Your task to perform on an android device: Search for Mexican restaurants on Maps Image 0: 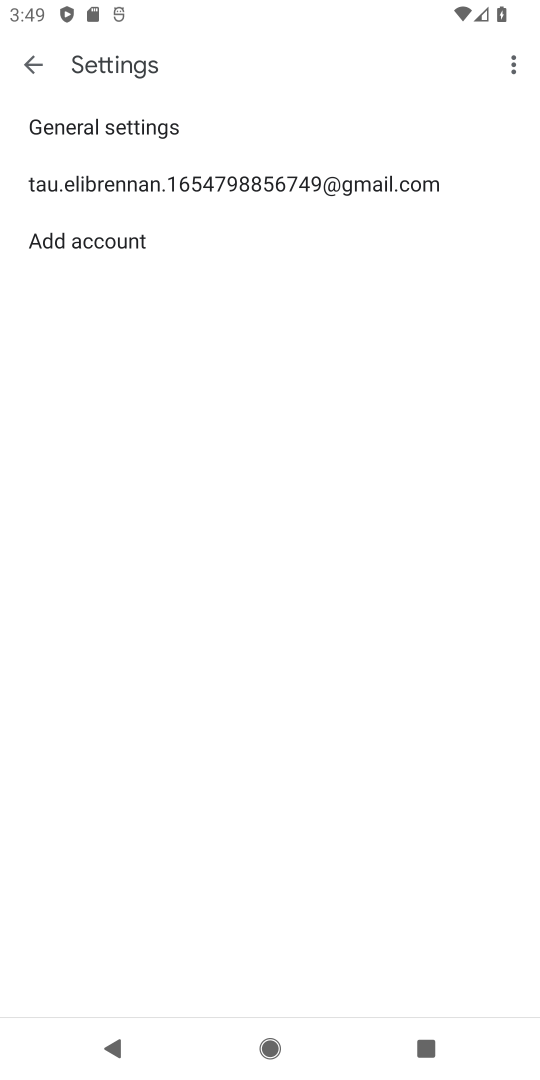
Step 0: press home button
Your task to perform on an android device: Search for Mexican restaurants on Maps Image 1: 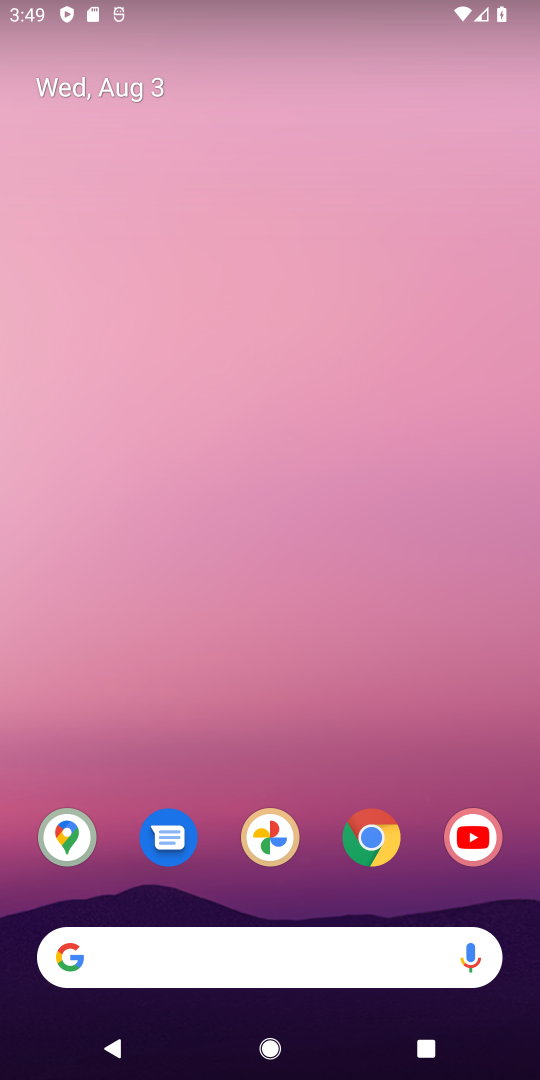
Step 1: drag from (421, 892) to (399, 214)
Your task to perform on an android device: Search for Mexican restaurants on Maps Image 2: 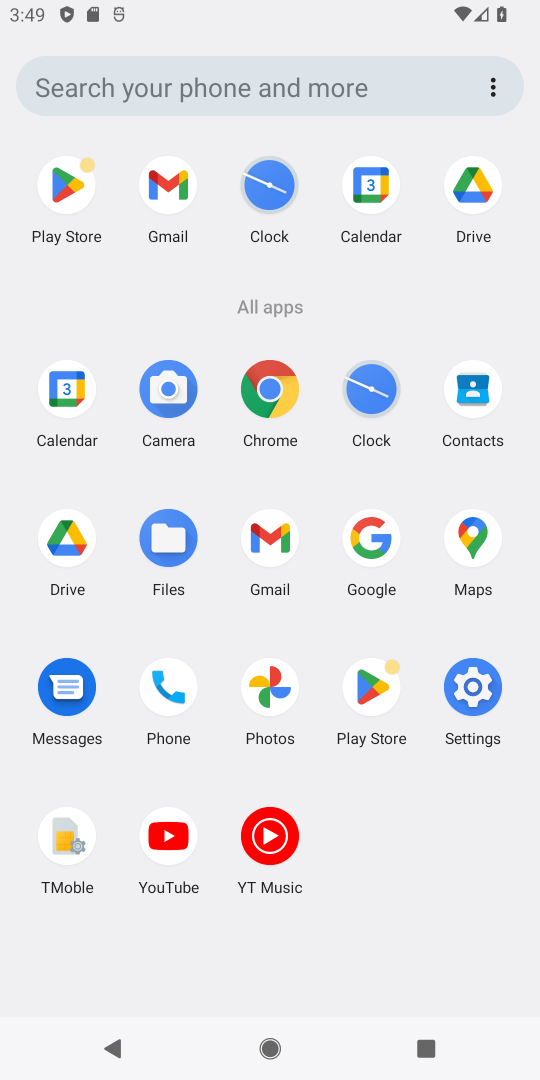
Step 2: click (475, 530)
Your task to perform on an android device: Search for Mexican restaurants on Maps Image 3: 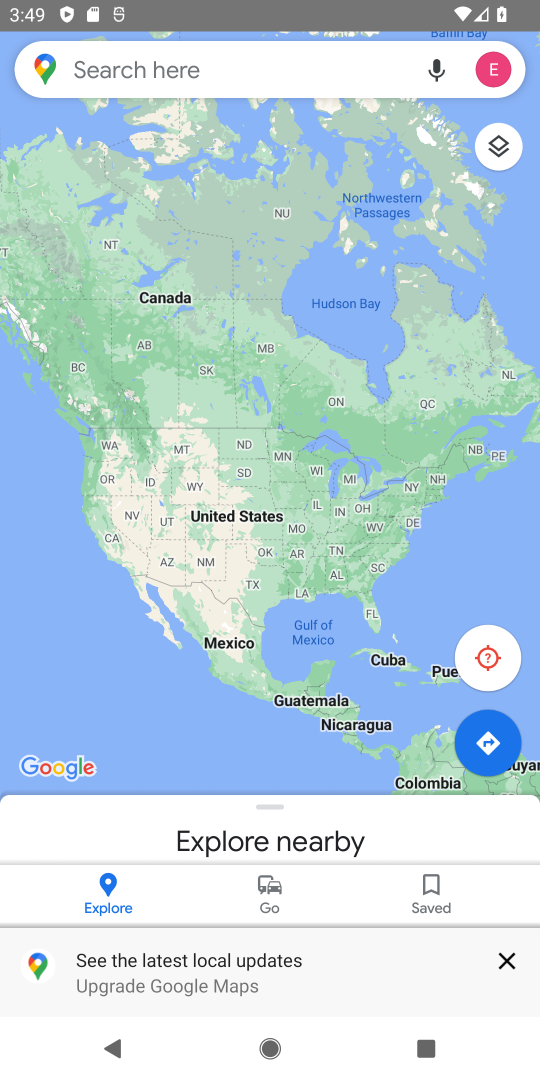
Step 3: click (153, 68)
Your task to perform on an android device: Search for Mexican restaurants on Maps Image 4: 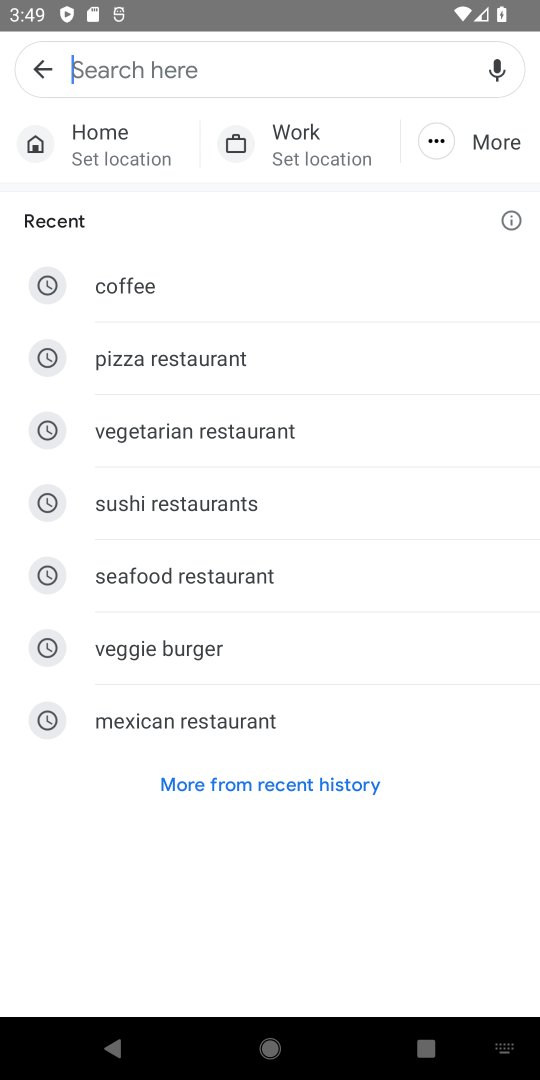
Step 4: type "mexican restaurants"
Your task to perform on an android device: Search for Mexican restaurants on Maps Image 5: 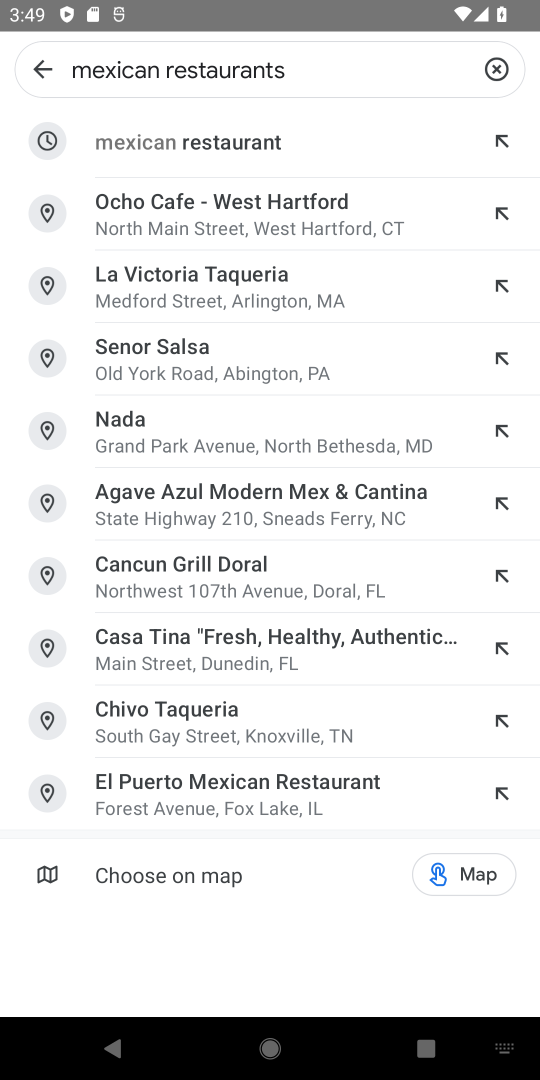
Step 5: click (193, 131)
Your task to perform on an android device: Search for Mexican restaurants on Maps Image 6: 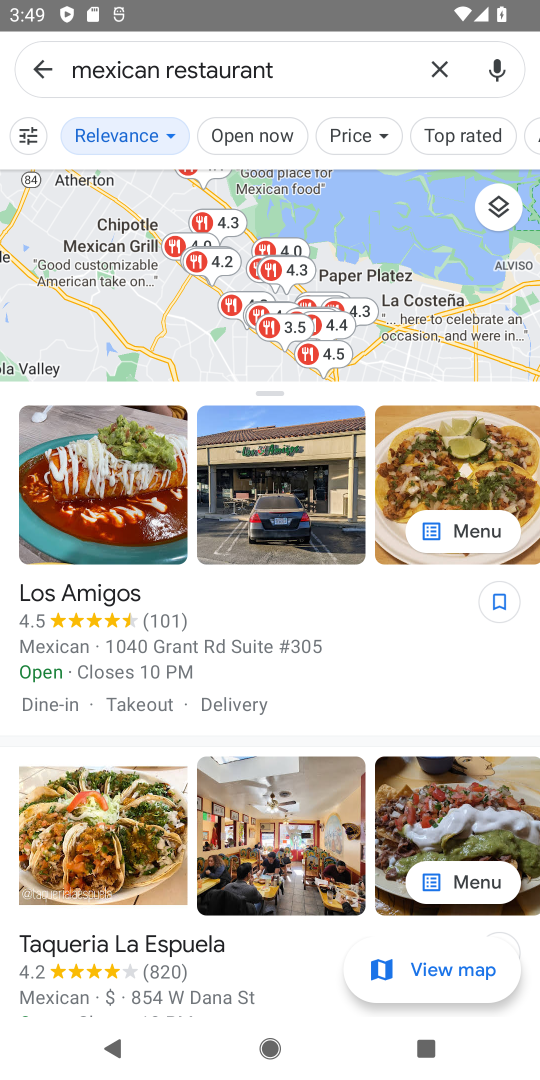
Step 6: task complete